Your task to perform on an android device: change notifications settings Image 0: 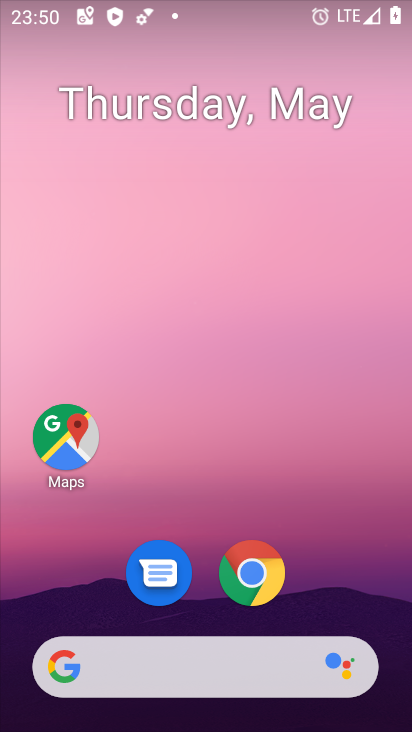
Step 0: drag from (199, 624) to (193, 215)
Your task to perform on an android device: change notifications settings Image 1: 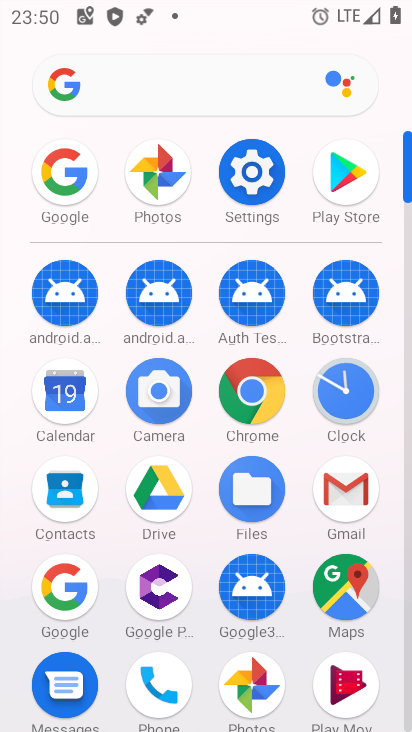
Step 1: click (247, 161)
Your task to perform on an android device: change notifications settings Image 2: 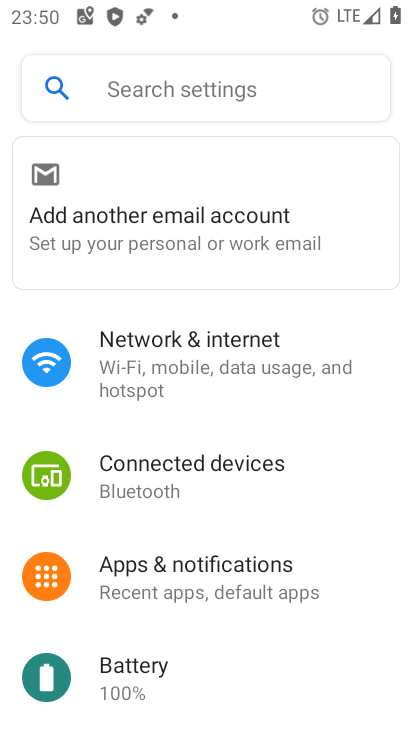
Step 2: click (242, 580)
Your task to perform on an android device: change notifications settings Image 3: 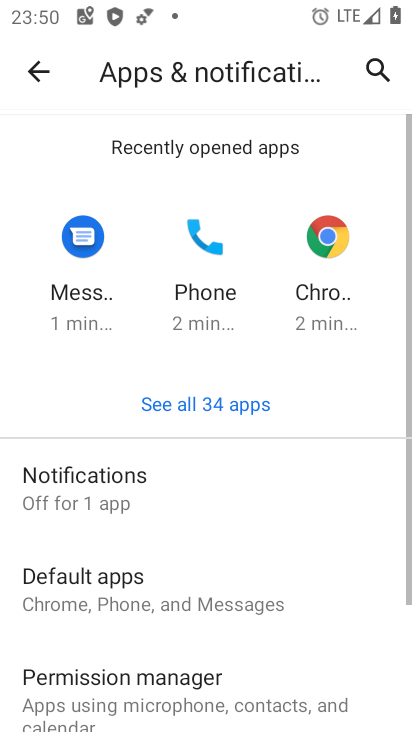
Step 3: click (191, 506)
Your task to perform on an android device: change notifications settings Image 4: 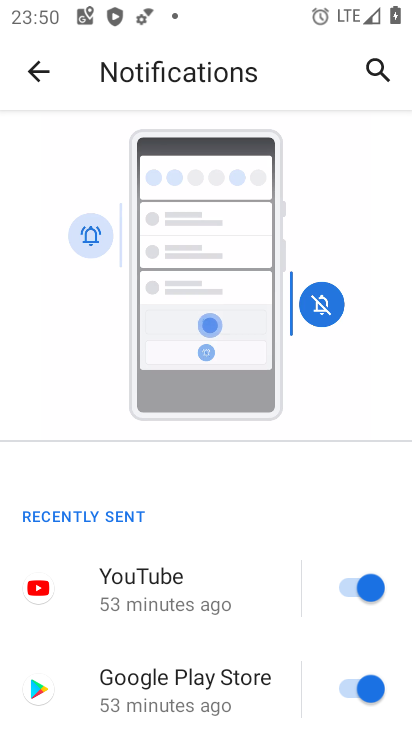
Step 4: task complete